Your task to perform on an android device: set the timer Image 0: 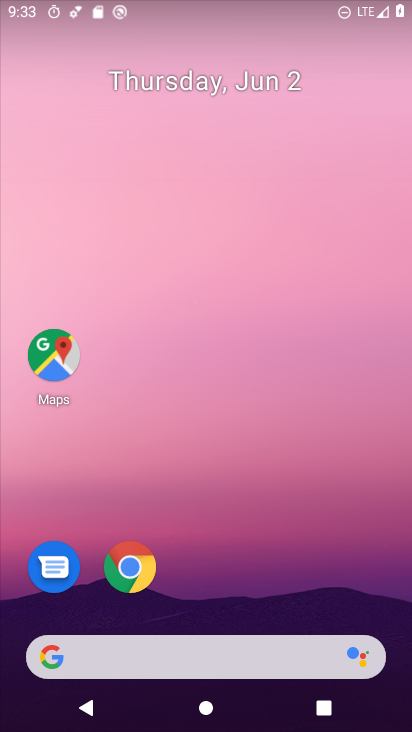
Step 0: drag from (344, 555) to (361, 172)
Your task to perform on an android device: set the timer Image 1: 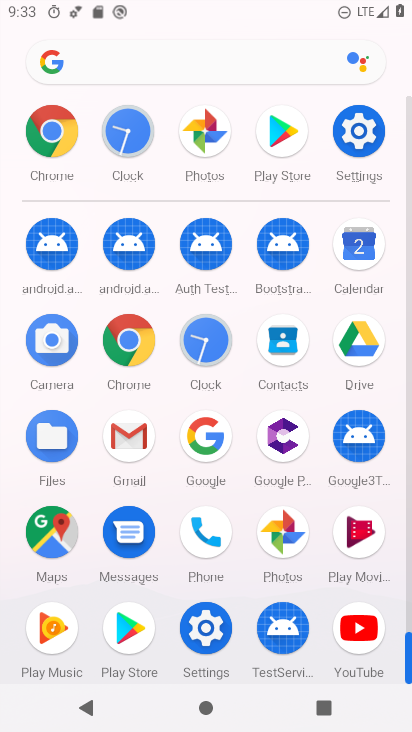
Step 1: click (212, 350)
Your task to perform on an android device: set the timer Image 2: 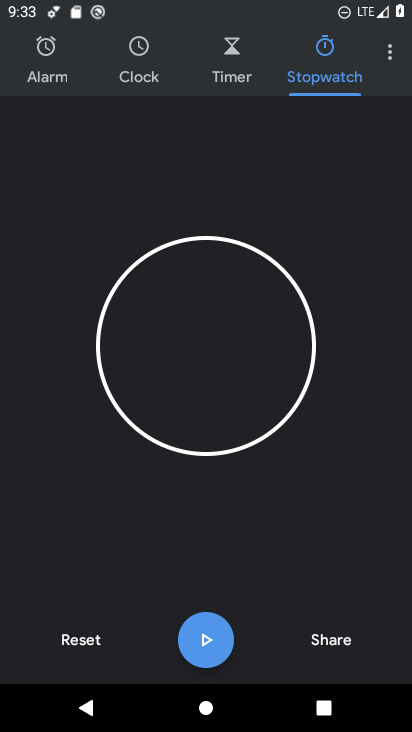
Step 2: click (225, 60)
Your task to perform on an android device: set the timer Image 3: 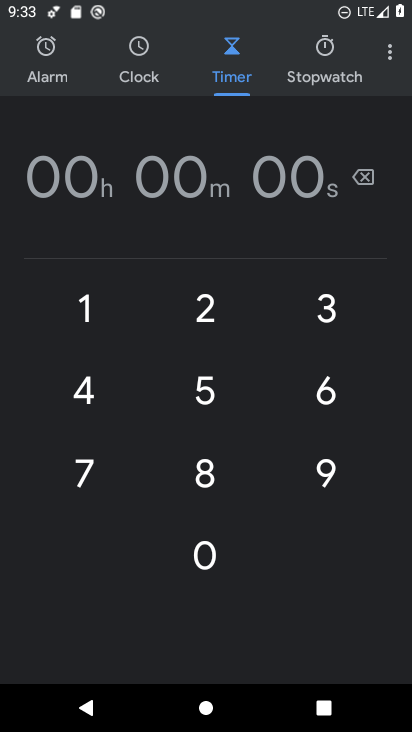
Step 3: click (87, 292)
Your task to perform on an android device: set the timer Image 4: 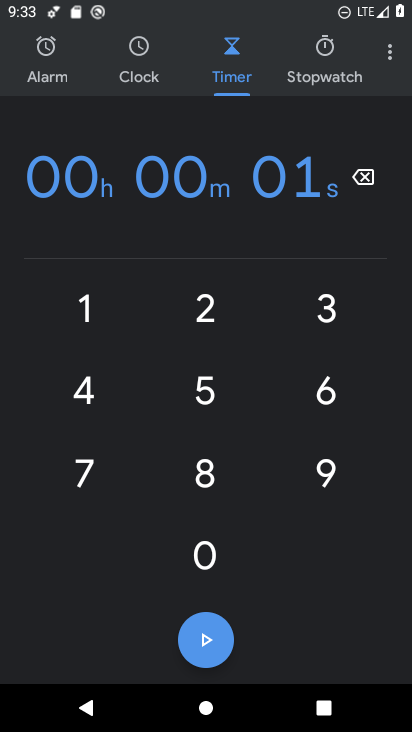
Step 4: click (214, 308)
Your task to perform on an android device: set the timer Image 5: 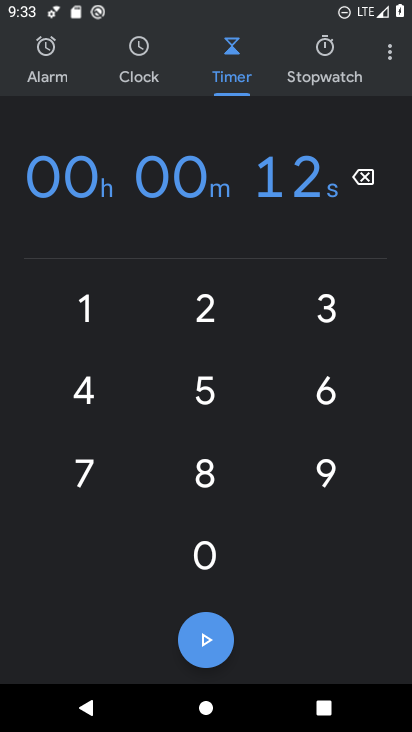
Step 5: click (212, 652)
Your task to perform on an android device: set the timer Image 6: 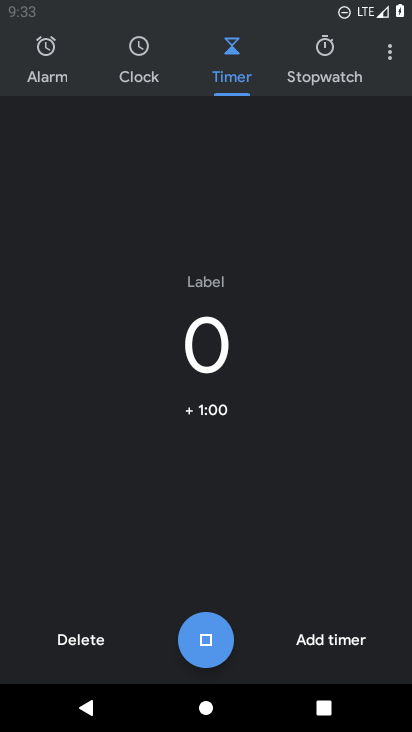
Step 6: click (205, 646)
Your task to perform on an android device: set the timer Image 7: 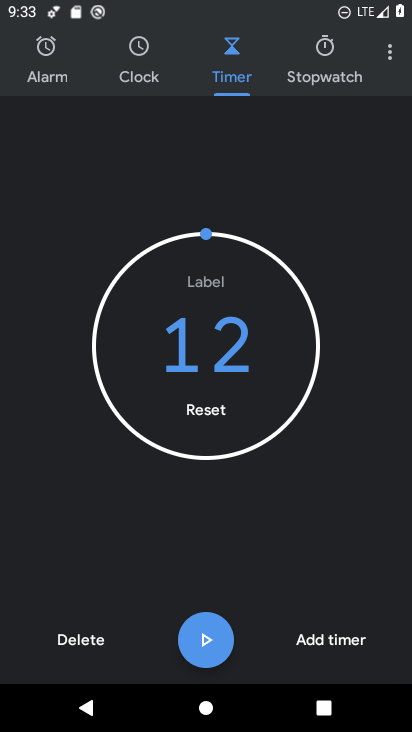
Step 7: task complete